Your task to perform on an android device: Open the phone app and click the voicemail tab. Image 0: 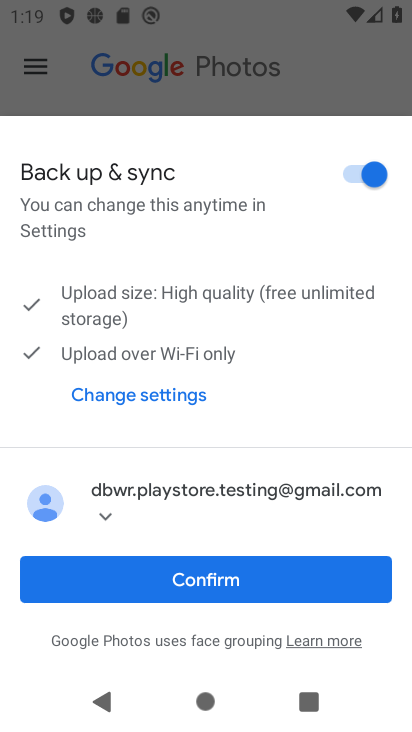
Step 0: press home button
Your task to perform on an android device: Open the phone app and click the voicemail tab. Image 1: 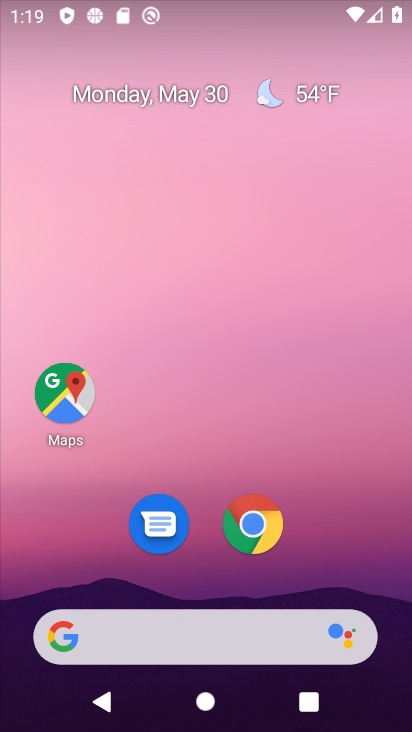
Step 1: drag from (193, 551) to (213, 8)
Your task to perform on an android device: Open the phone app and click the voicemail tab. Image 2: 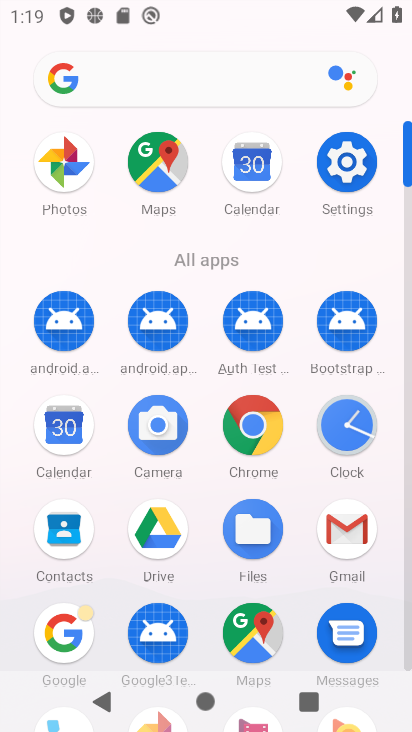
Step 2: drag from (193, 457) to (231, 13)
Your task to perform on an android device: Open the phone app and click the voicemail tab. Image 3: 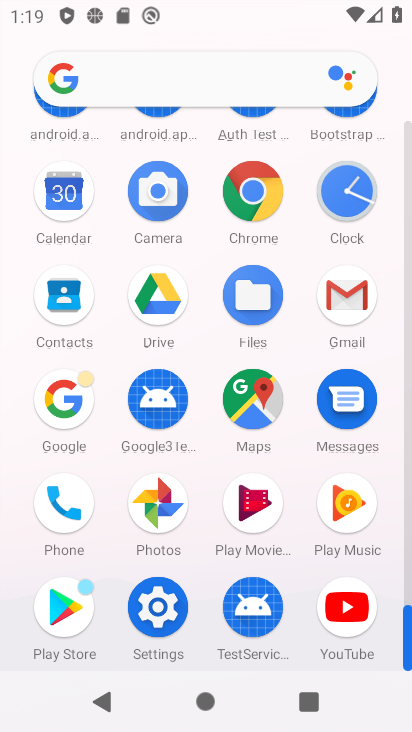
Step 3: click (65, 495)
Your task to perform on an android device: Open the phone app and click the voicemail tab. Image 4: 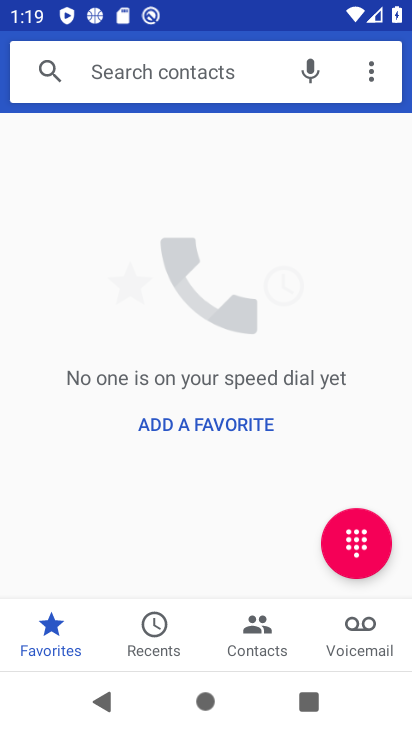
Step 4: click (367, 635)
Your task to perform on an android device: Open the phone app and click the voicemail tab. Image 5: 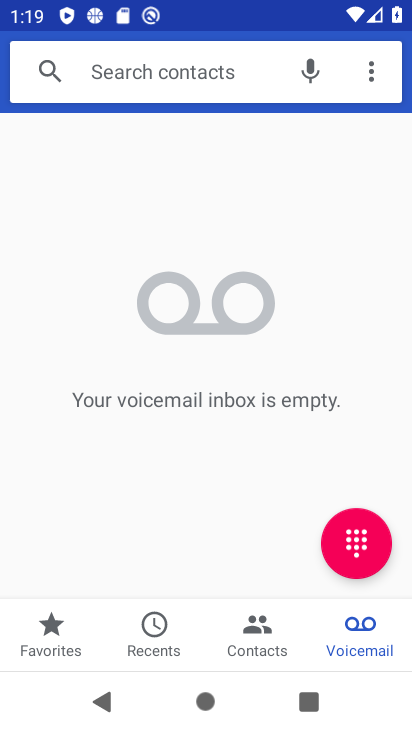
Step 5: task complete